Your task to perform on an android device: Checkthe settings for the Amazon Prime Music app Image 0: 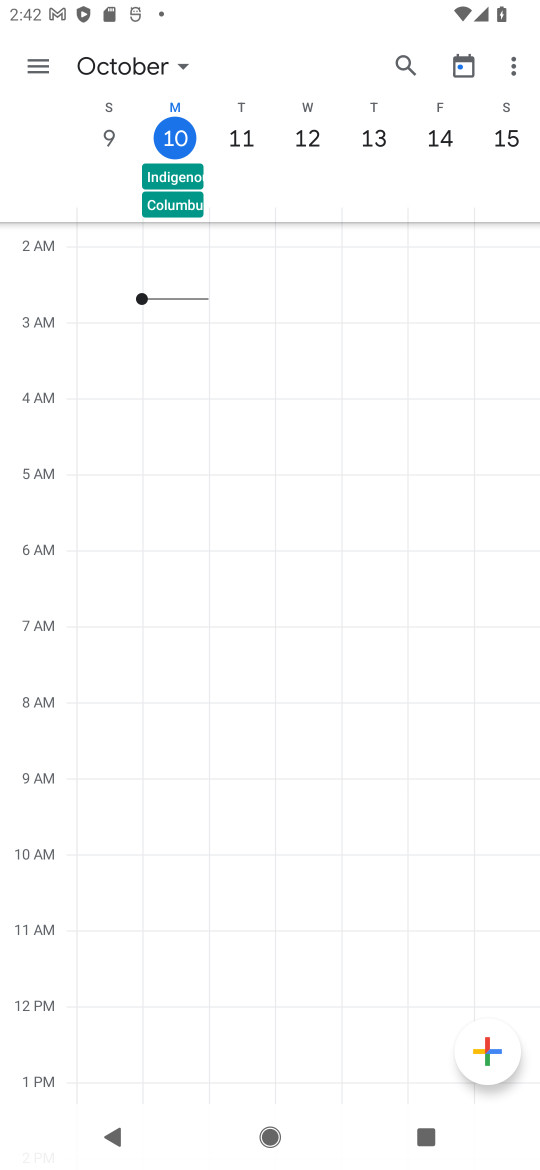
Step 0: press home button
Your task to perform on an android device: Checkthe settings for the Amazon Prime Music app Image 1: 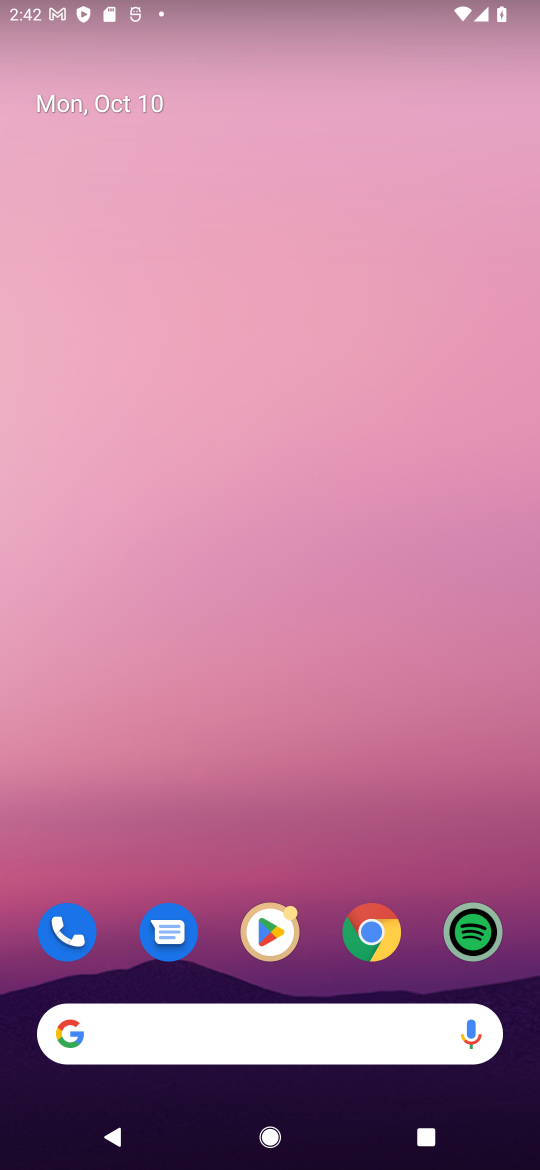
Step 1: drag from (496, 815) to (450, 135)
Your task to perform on an android device: Checkthe settings for the Amazon Prime Music app Image 2: 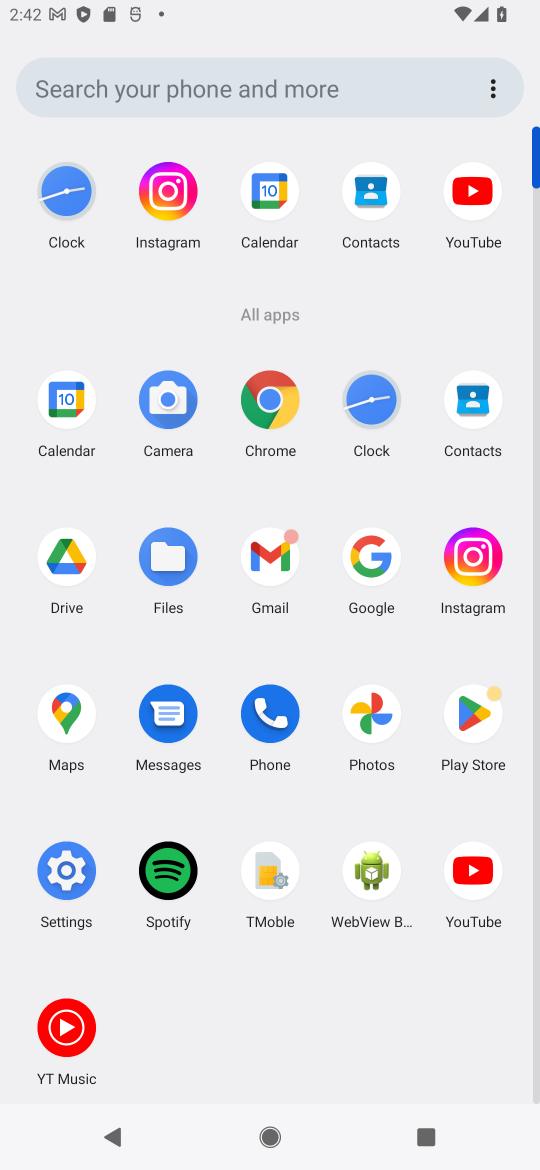
Step 2: click (481, 705)
Your task to perform on an android device: Checkthe settings for the Amazon Prime Music app Image 3: 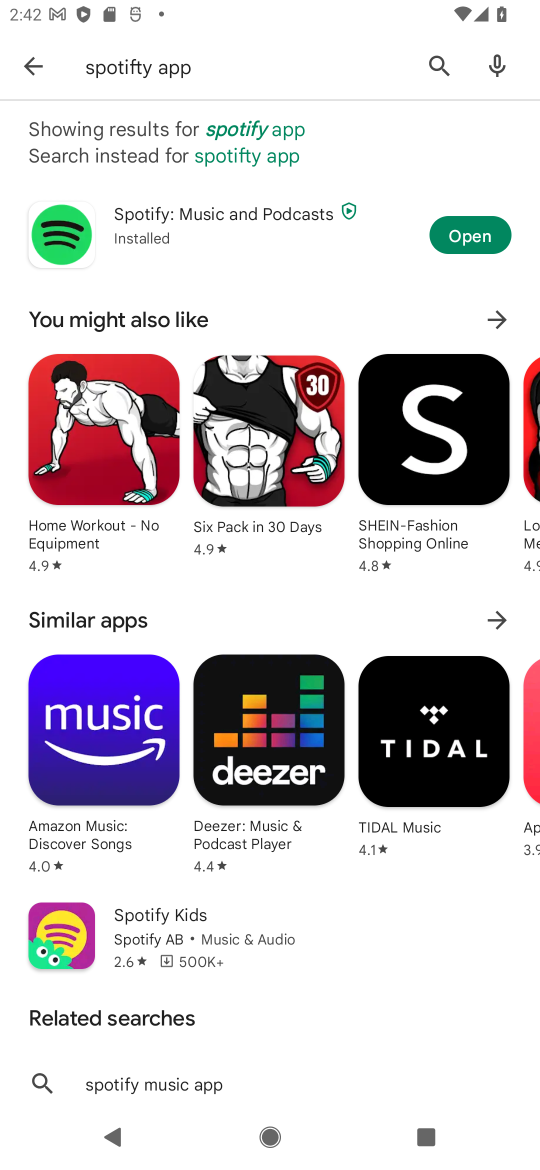
Step 3: press back button
Your task to perform on an android device: Checkthe settings for the Amazon Prime Music app Image 4: 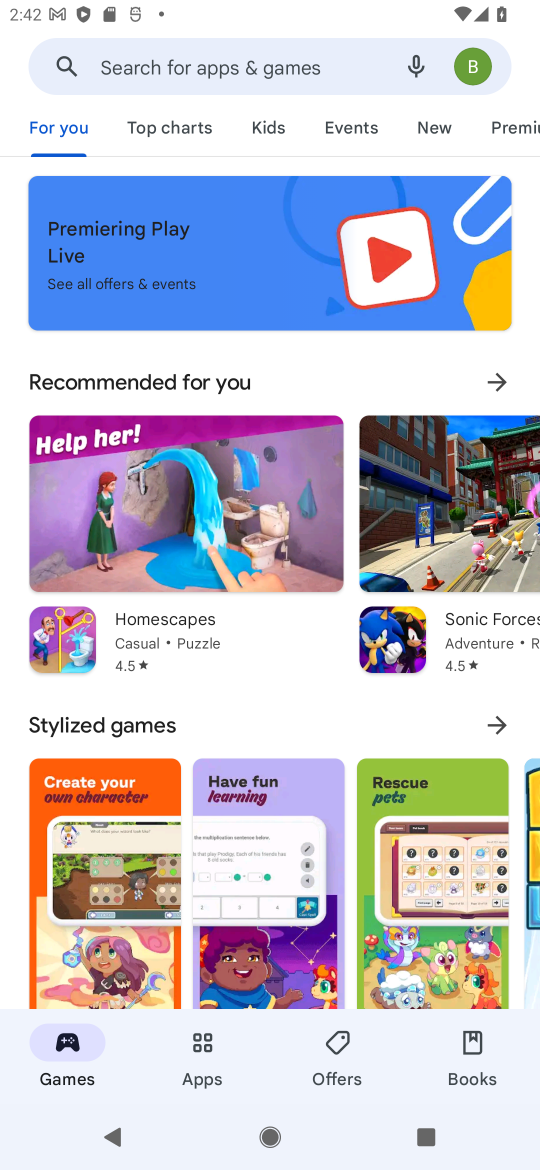
Step 4: click (225, 73)
Your task to perform on an android device: Checkthe settings for the Amazon Prime Music app Image 5: 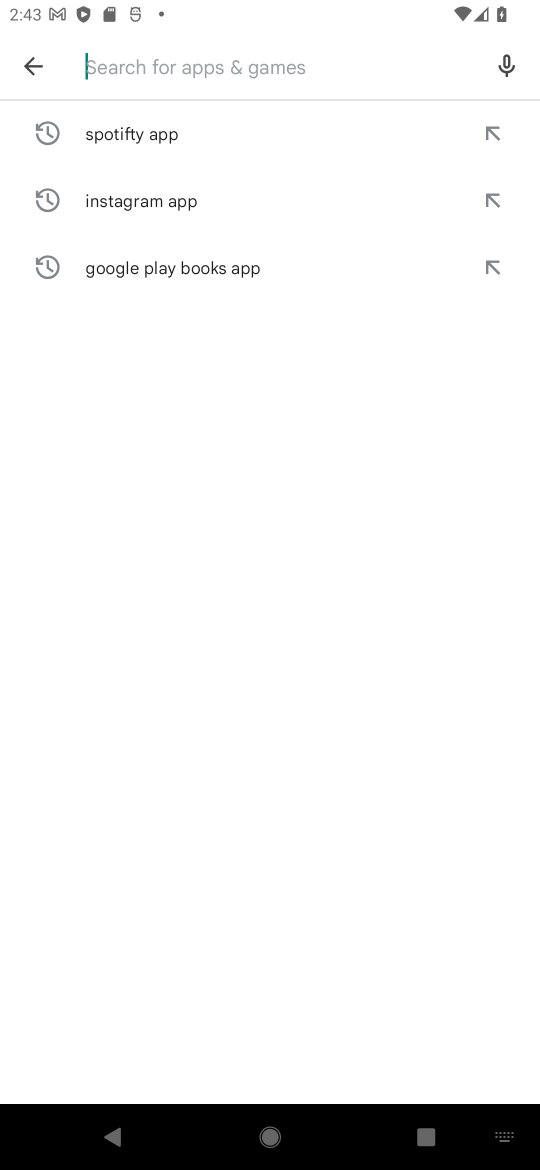
Step 5: type "Amazon Prime Music app"
Your task to perform on an android device: Checkthe settings for the Amazon Prime Music app Image 6: 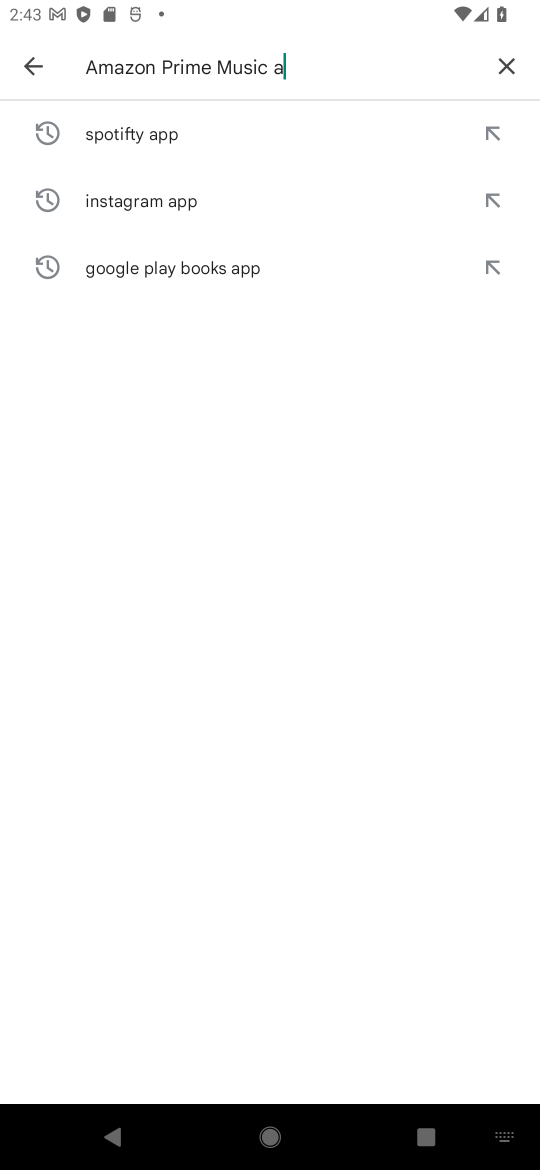
Step 6: press enter
Your task to perform on an android device: Checkthe settings for the Amazon Prime Music app Image 7: 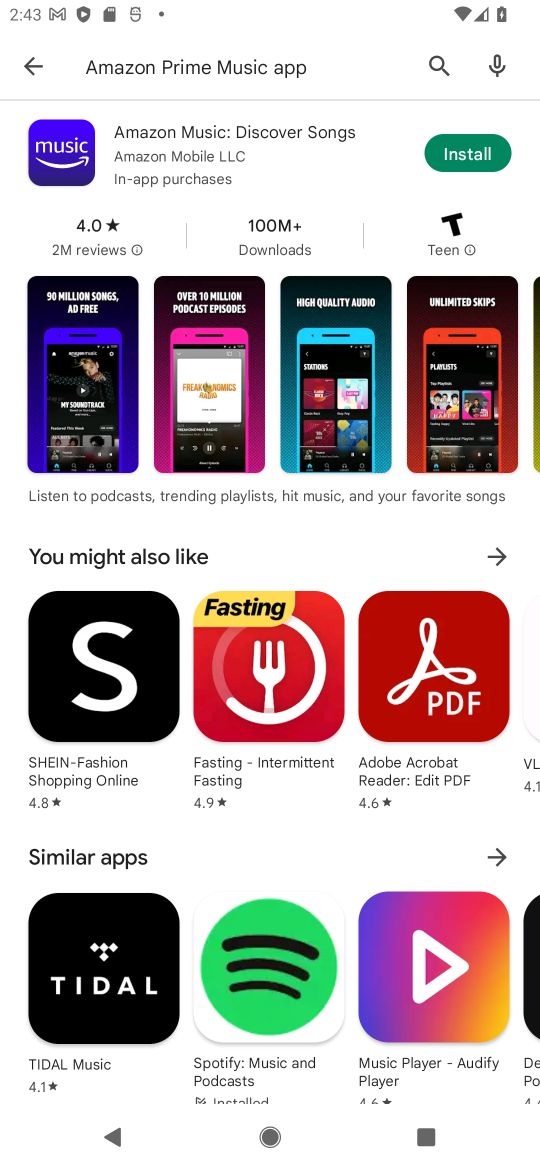
Step 7: task complete